Your task to perform on an android device: Open CNN.com Image 0: 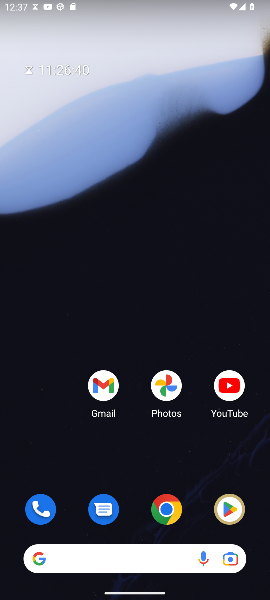
Step 0: press home button
Your task to perform on an android device: Open CNN.com Image 1: 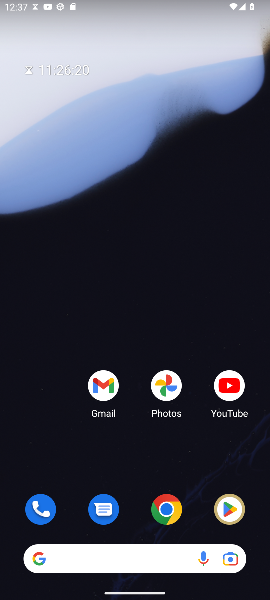
Step 1: drag from (145, 514) to (167, 92)
Your task to perform on an android device: Open CNN.com Image 2: 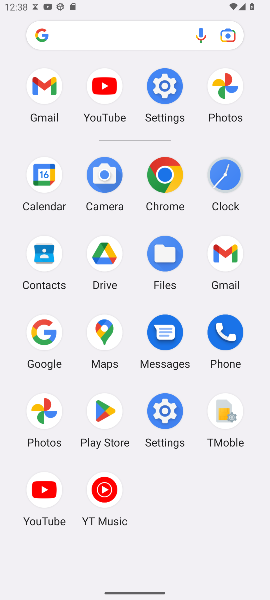
Step 2: click (38, 329)
Your task to perform on an android device: Open CNN.com Image 3: 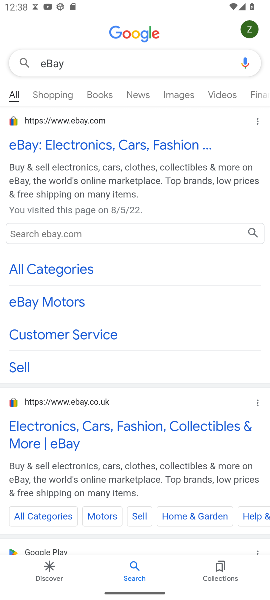
Step 3: click (117, 56)
Your task to perform on an android device: Open CNN.com Image 4: 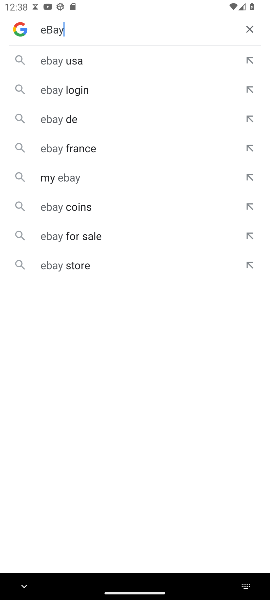
Step 4: click (250, 27)
Your task to perform on an android device: Open CNN.com Image 5: 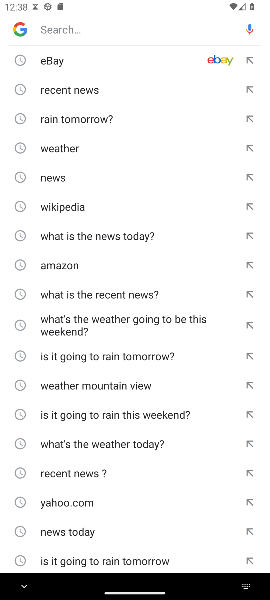
Step 5: type "CNN.com"
Your task to perform on an android device: Open CNN.com Image 6: 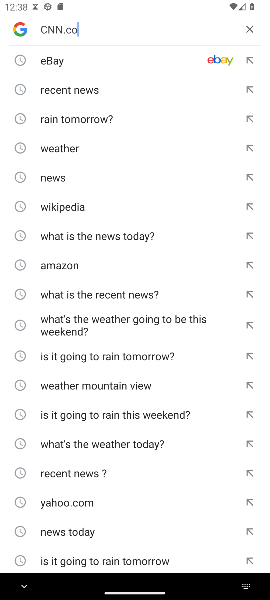
Step 6: press enter
Your task to perform on an android device: Open CNN.com Image 7: 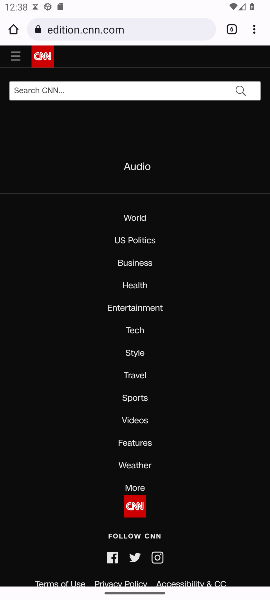
Step 7: task complete